Your task to perform on an android device: Open Google Chrome and click the shortcut for Amazon.com Image 0: 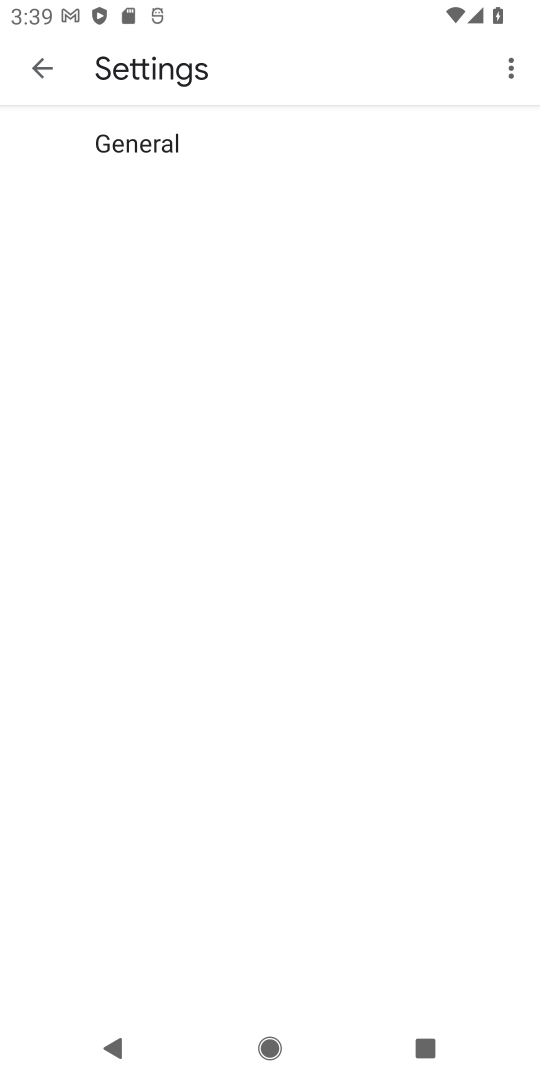
Step 0: press home button
Your task to perform on an android device: Open Google Chrome and click the shortcut for Amazon.com Image 1: 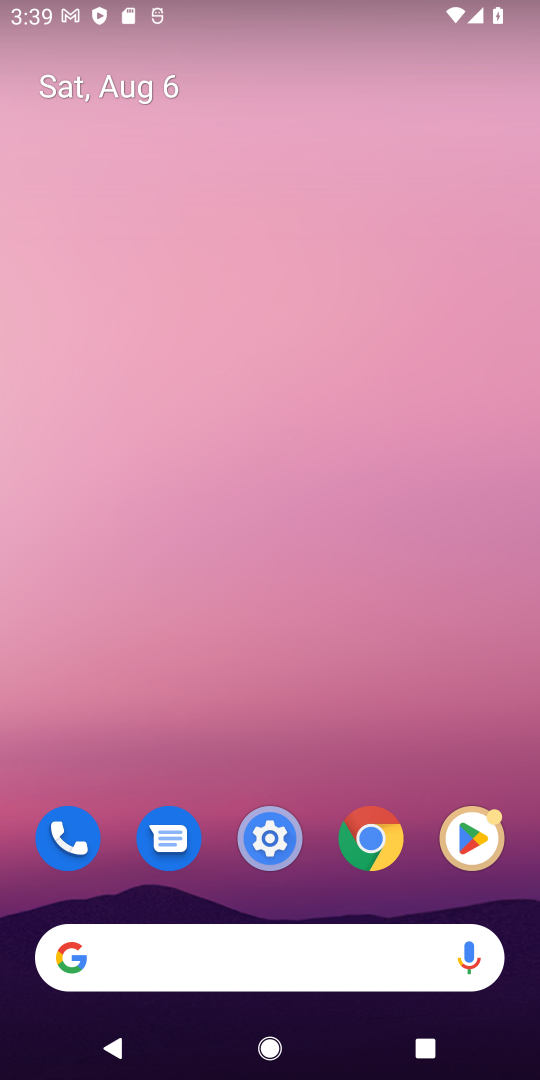
Step 1: drag from (268, 958) to (224, 57)
Your task to perform on an android device: Open Google Chrome and click the shortcut for Amazon.com Image 2: 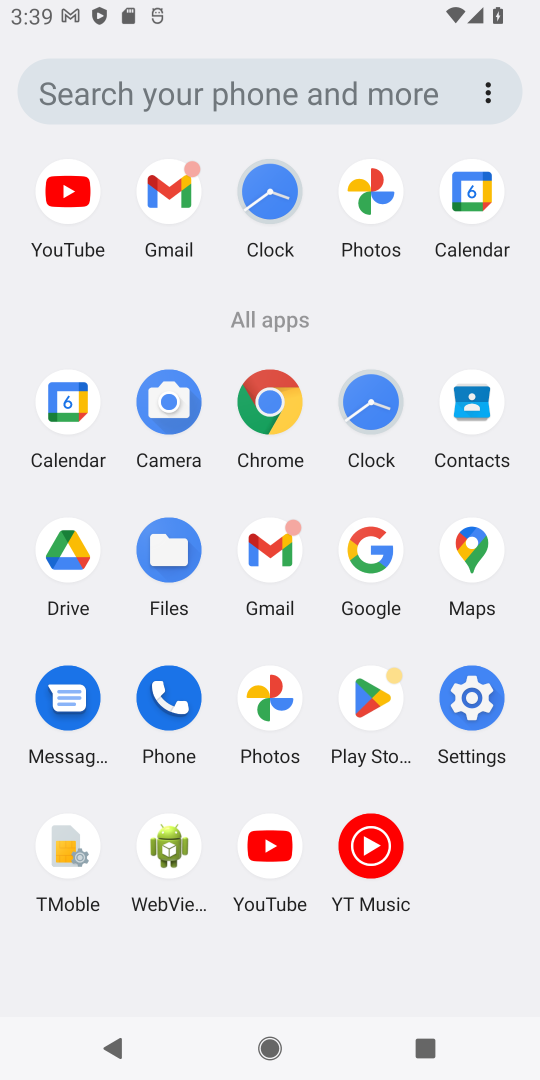
Step 2: click (264, 400)
Your task to perform on an android device: Open Google Chrome and click the shortcut for Amazon.com Image 3: 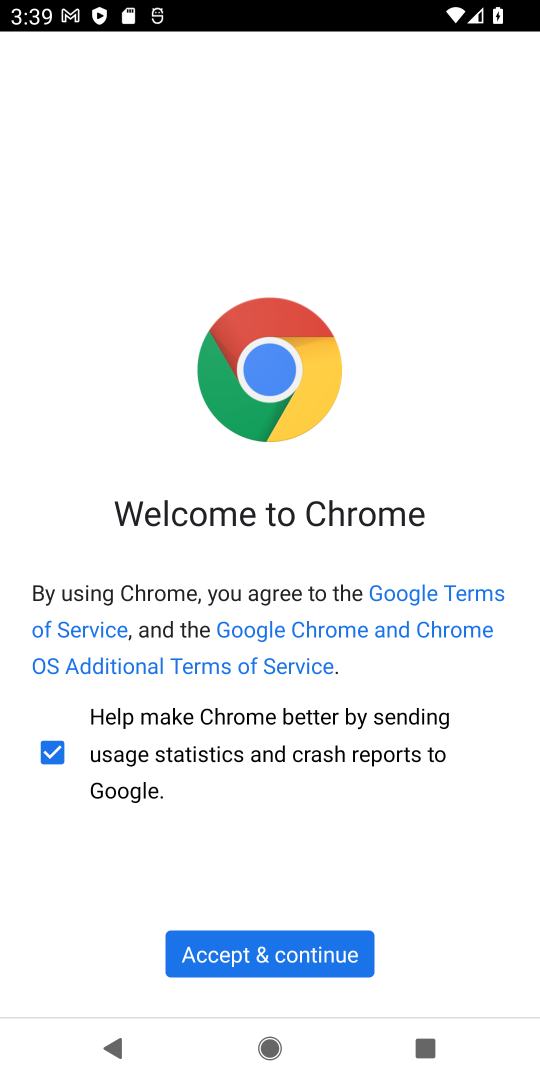
Step 3: click (189, 951)
Your task to perform on an android device: Open Google Chrome and click the shortcut for Amazon.com Image 4: 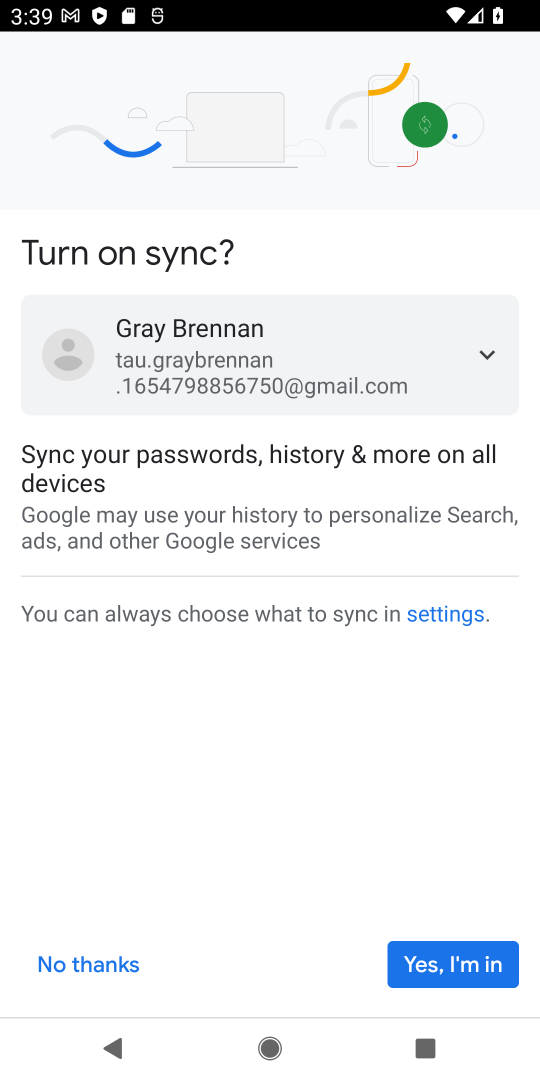
Step 4: click (129, 967)
Your task to perform on an android device: Open Google Chrome and click the shortcut for Amazon.com Image 5: 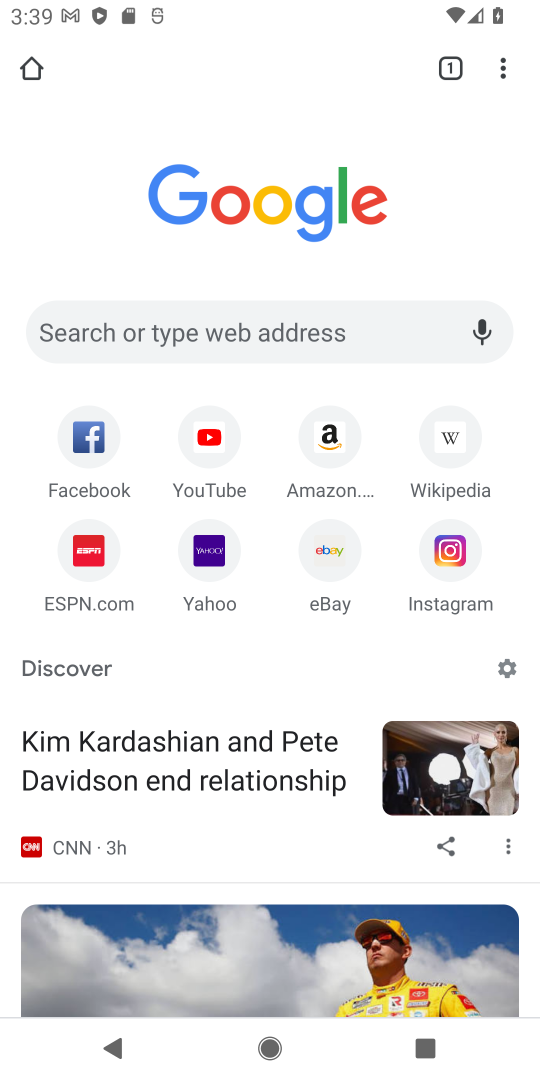
Step 5: click (320, 443)
Your task to perform on an android device: Open Google Chrome and click the shortcut for Amazon.com Image 6: 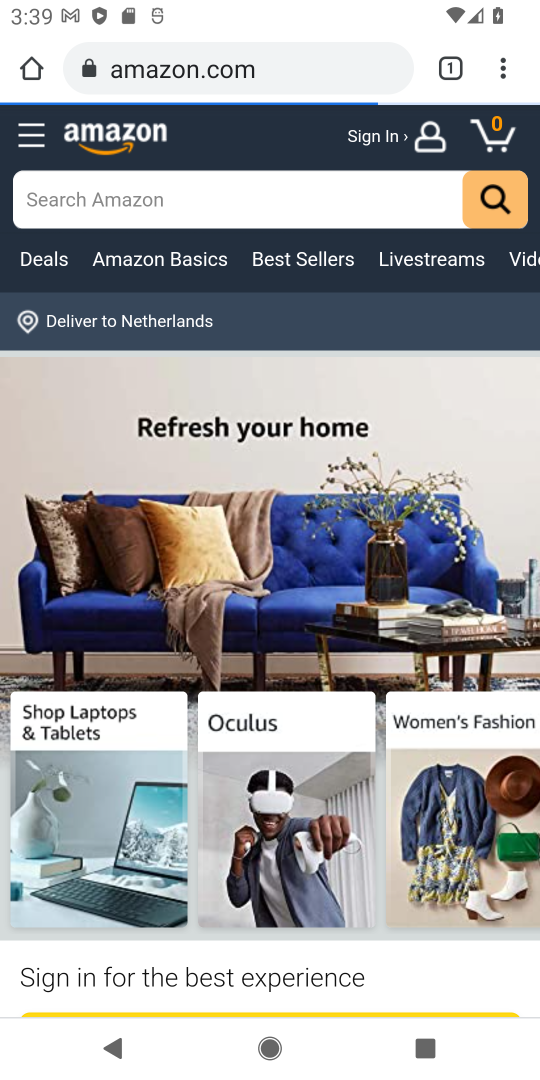
Step 6: click (492, 62)
Your task to perform on an android device: Open Google Chrome and click the shortcut for Amazon.com Image 7: 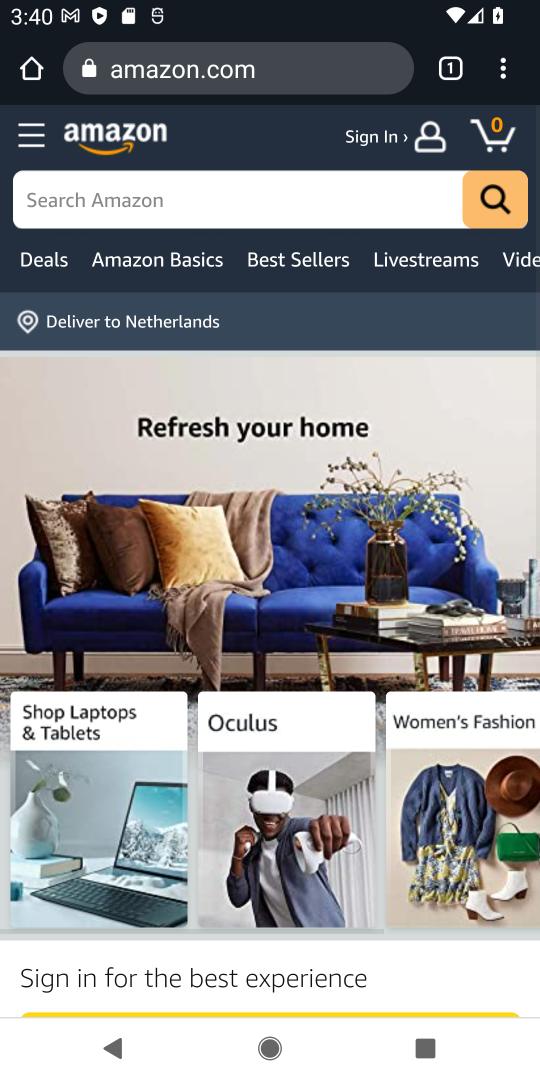
Step 7: click (503, 74)
Your task to perform on an android device: Open Google Chrome and click the shortcut for Amazon.com Image 8: 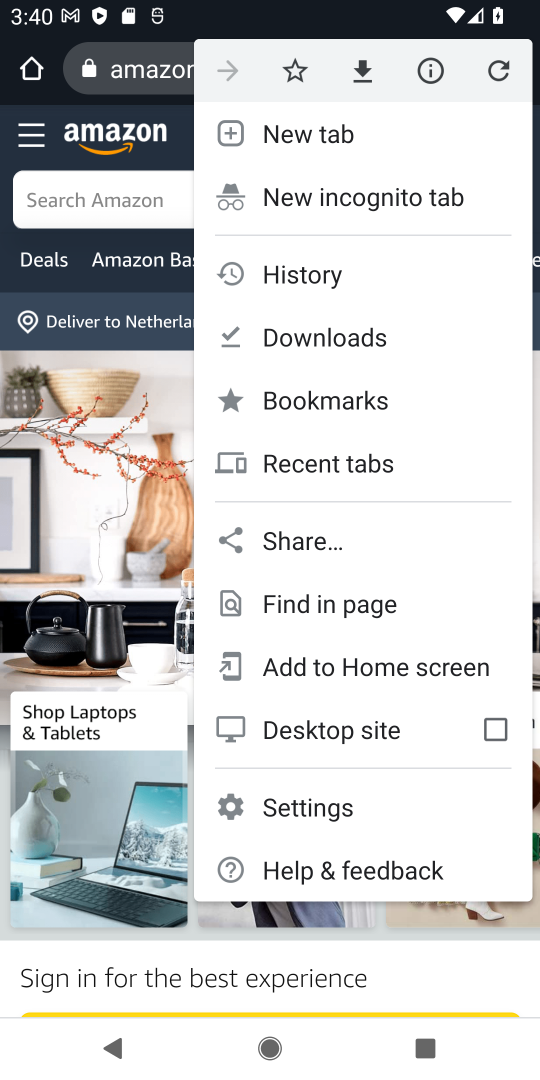
Step 8: click (311, 675)
Your task to perform on an android device: Open Google Chrome and click the shortcut for Amazon.com Image 9: 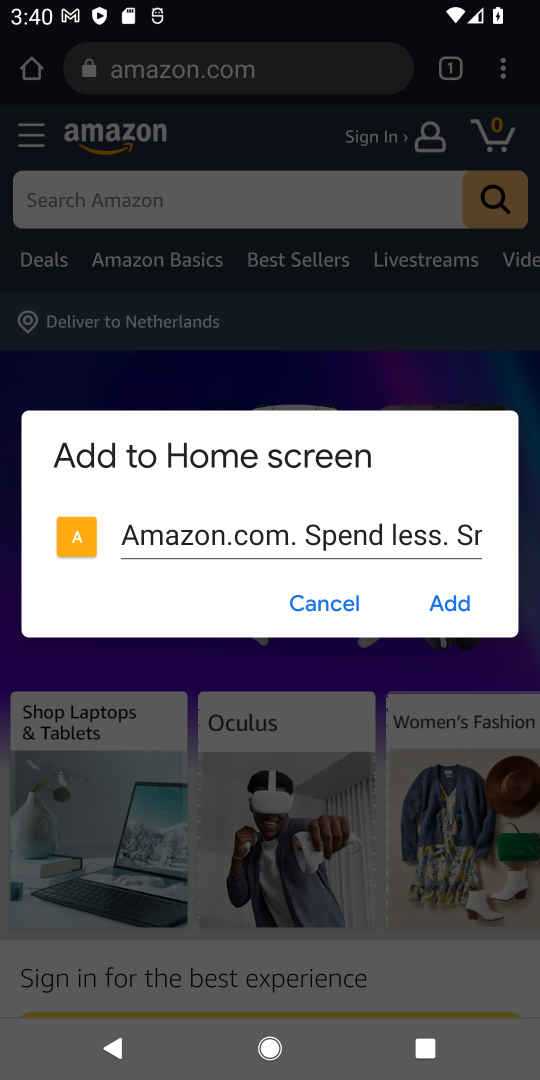
Step 9: click (448, 603)
Your task to perform on an android device: Open Google Chrome and click the shortcut for Amazon.com Image 10: 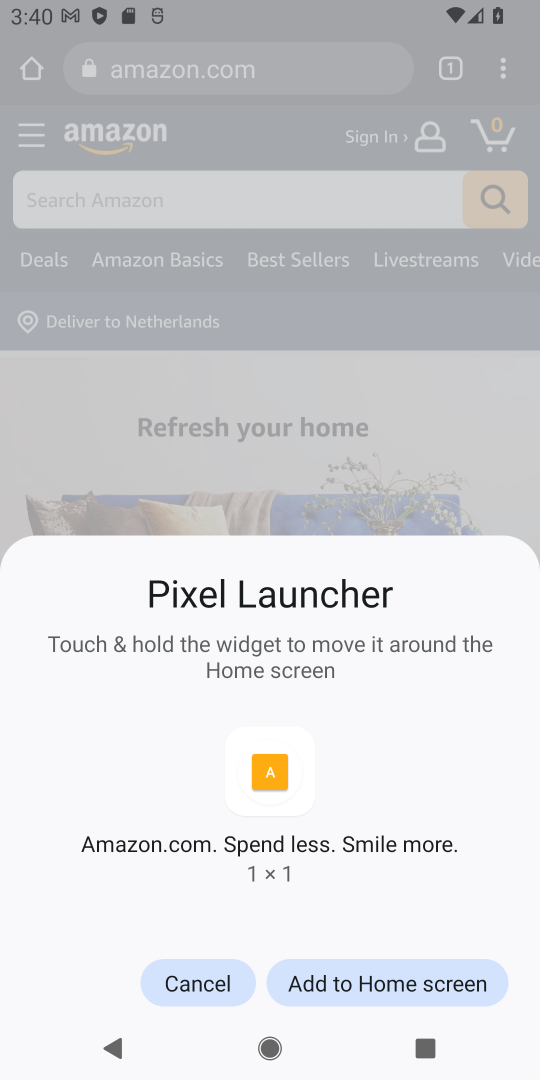
Step 10: click (307, 981)
Your task to perform on an android device: Open Google Chrome and click the shortcut for Amazon.com Image 11: 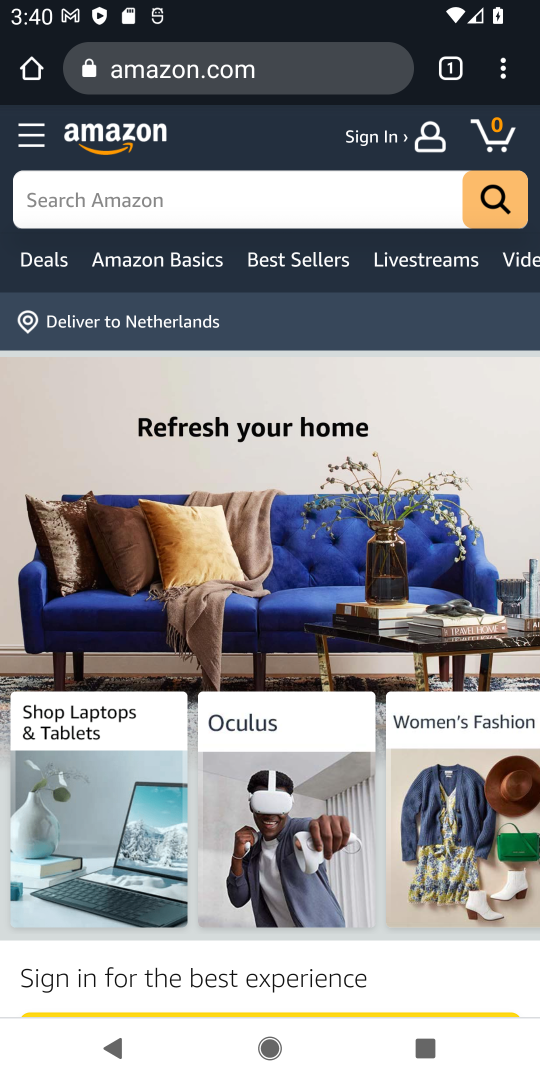
Step 11: task complete